Your task to perform on an android device: turn off priority inbox in the gmail app Image 0: 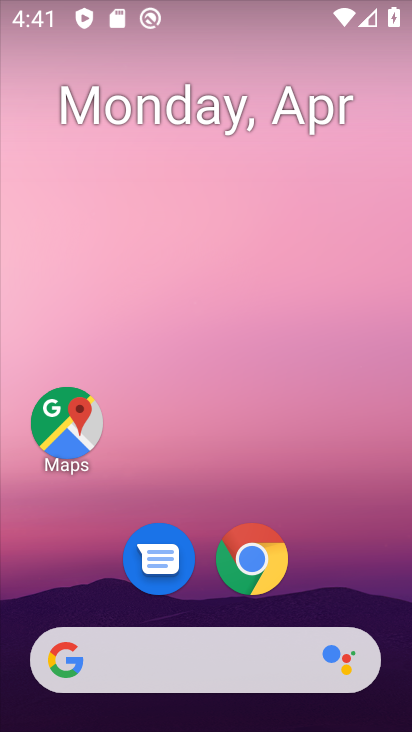
Step 0: drag from (322, 426) to (278, 10)
Your task to perform on an android device: turn off priority inbox in the gmail app Image 1: 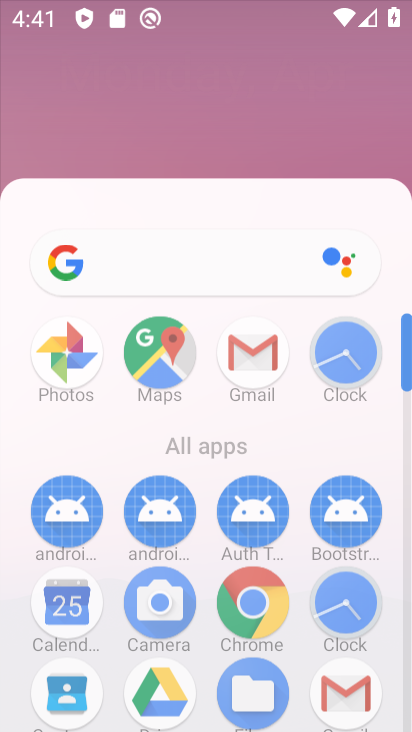
Step 1: drag from (369, 417) to (50, 354)
Your task to perform on an android device: turn off priority inbox in the gmail app Image 2: 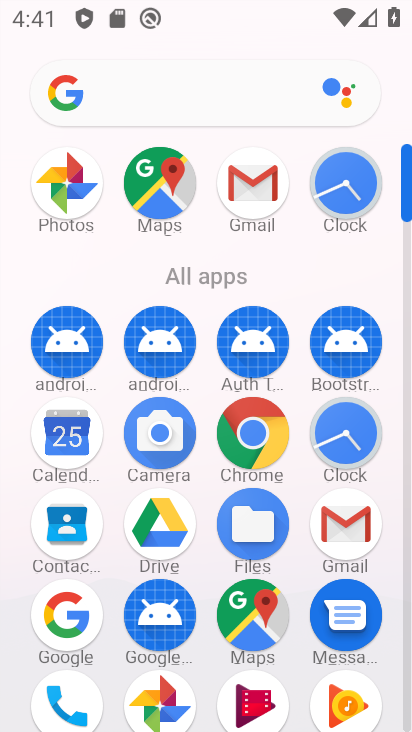
Step 2: click (253, 190)
Your task to perform on an android device: turn off priority inbox in the gmail app Image 3: 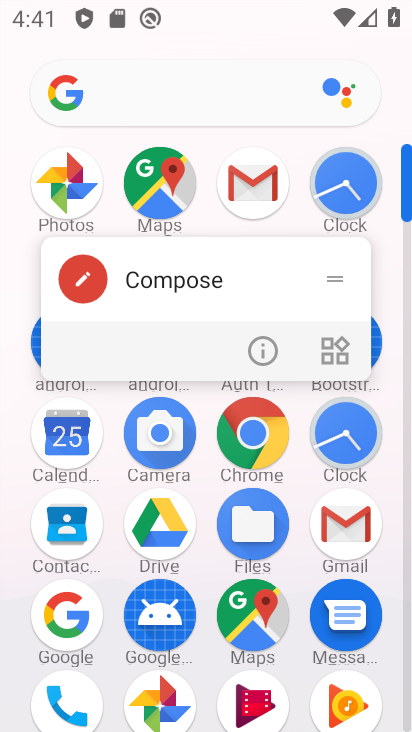
Step 3: click (253, 189)
Your task to perform on an android device: turn off priority inbox in the gmail app Image 4: 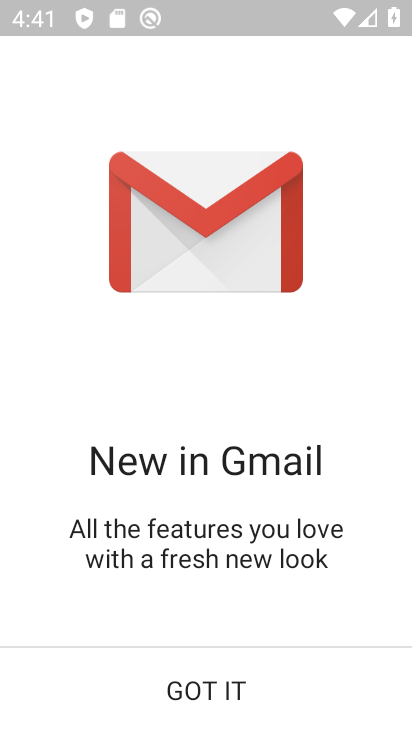
Step 4: click (233, 686)
Your task to perform on an android device: turn off priority inbox in the gmail app Image 5: 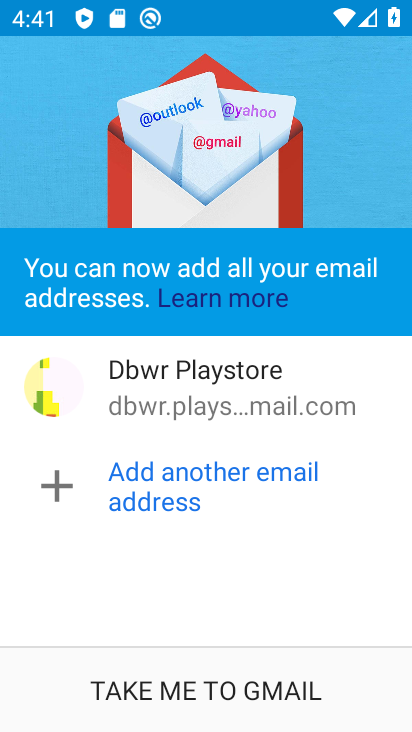
Step 5: click (233, 687)
Your task to perform on an android device: turn off priority inbox in the gmail app Image 6: 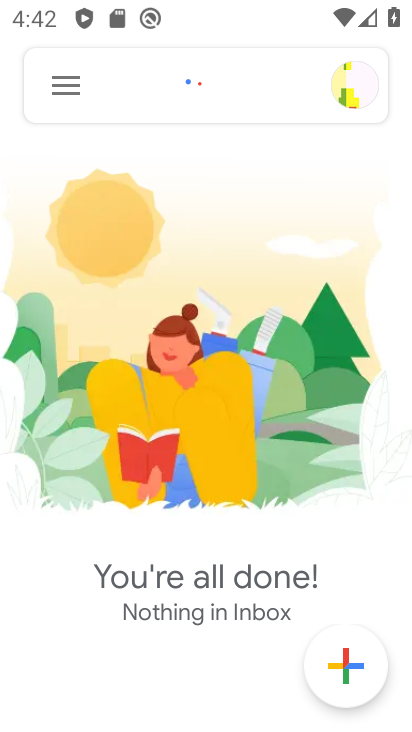
Step 6: click (70, 91)
Your task to perform on an android device: turn off priority inbox in the gmail app Image 7: 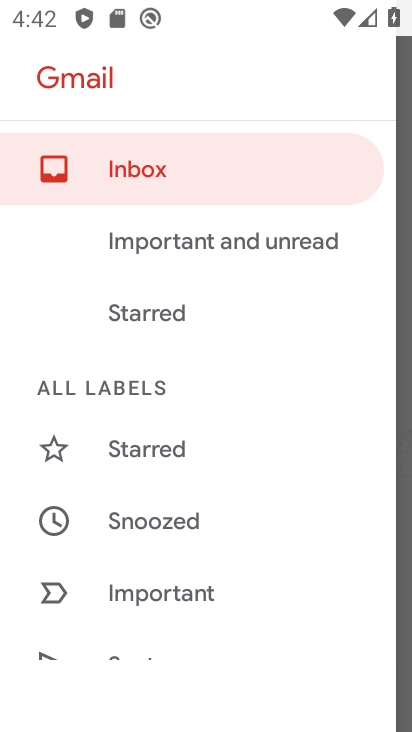
Step 7: drag from (217, 609) to (207, 184)
Your task to perform on an android device: turn off priority inbox in the gmail app Image 8: 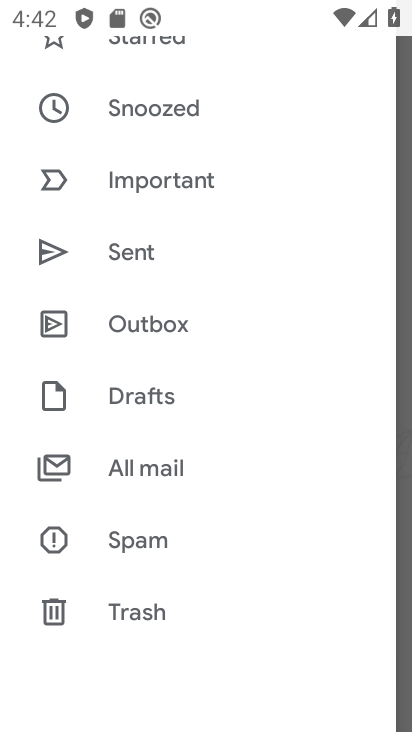
Step 8: drag from (267, 477) to (226, 98)
Your task to perform on an android device: turn off priority inbox in the gmail app Image 9: 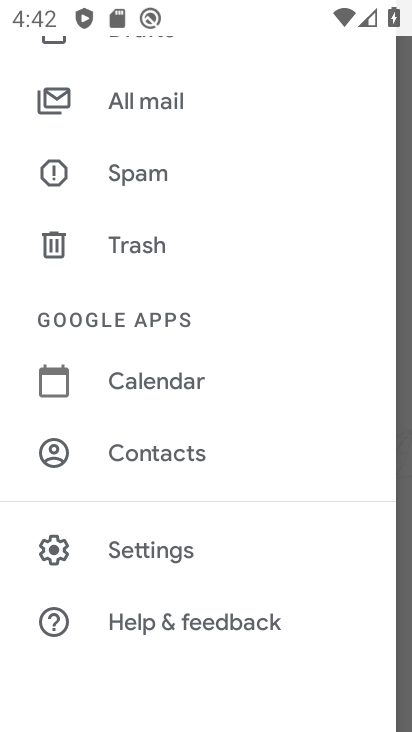
Step 9: click (187, 550)
Your task to perform on an android device: turn off priority inbox in the gmail app Image 10: 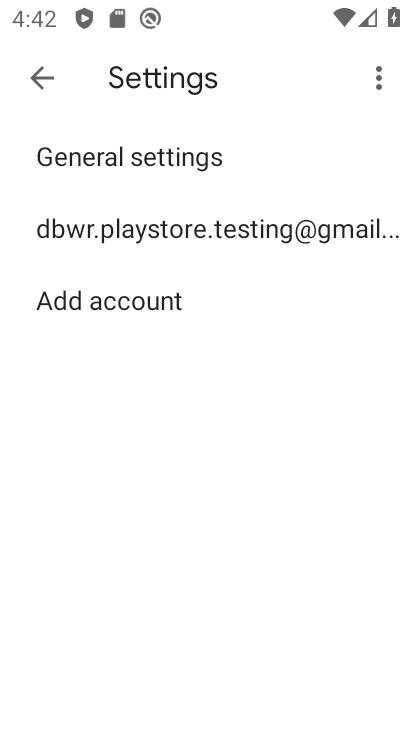
Step 10: click (98, 239)
Your task to perform on an android device: turn off priority inbox in the gmail app Image 11: 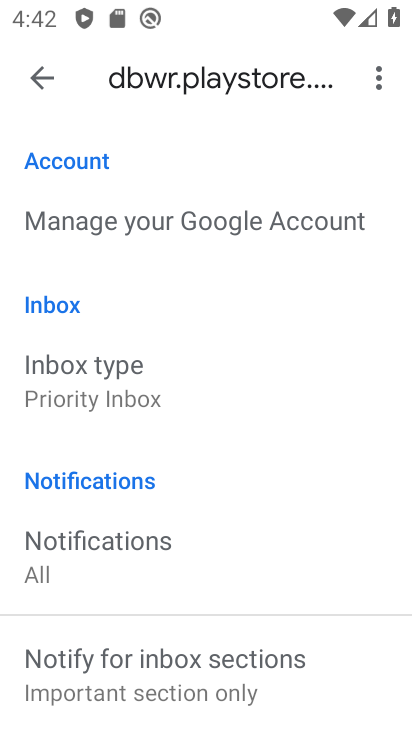
Step 11: click (90, 390)
Your task to perform on an android device: turn off priority inbox in the gmail app Image 12: 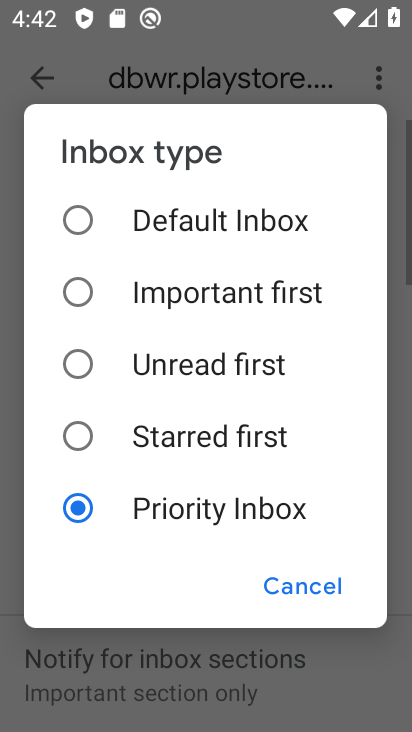
Step 12: click (73, 235)
Your task to perform on an android device: turn off priority inbox in the gmail app Image 13: 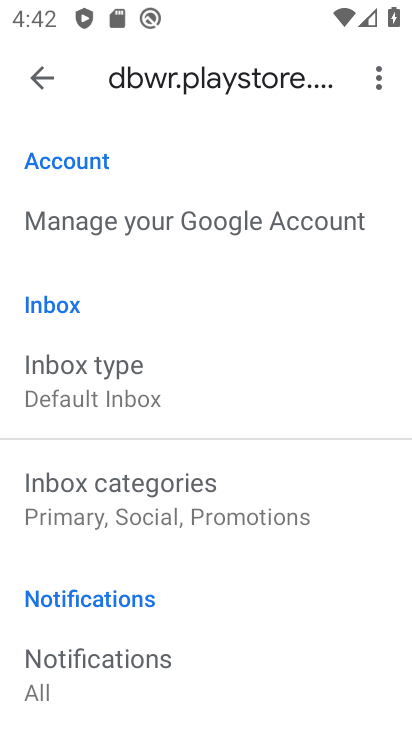
Step 13: task complete